Your task to perform on an android device: Clear the cart on amazon.com. Search for lg ultragear on amazon.com, select the first entry, and add it to the cart. Image 0: 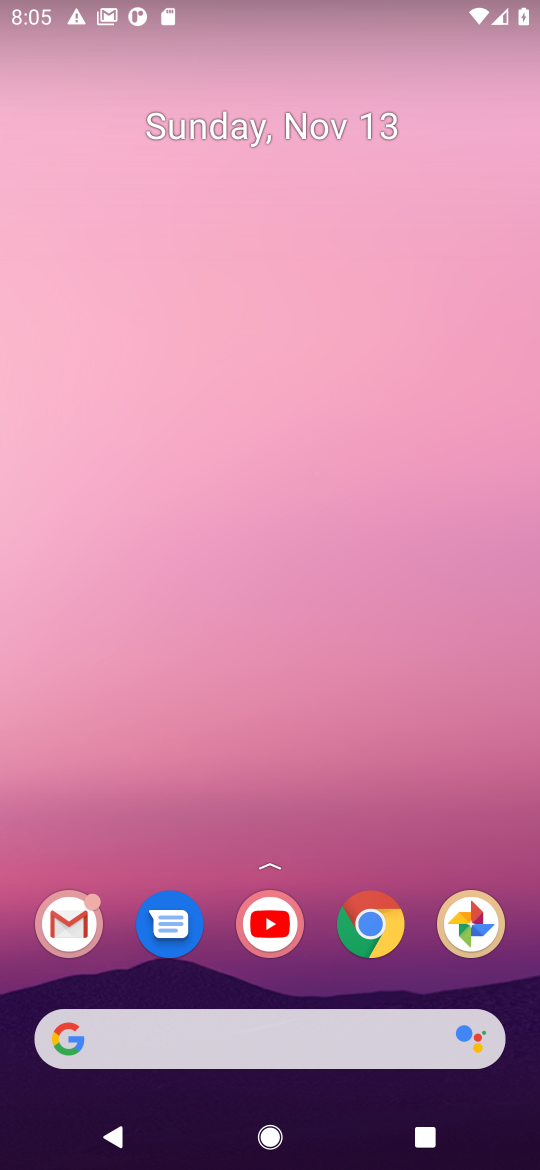
Step 0: click (370, 924)
Your task to perform on an android device: Clear the cart on amazon.com. Search for lg ultragear on amazon.com, select the first entry, and add it to the cart. Image 1: 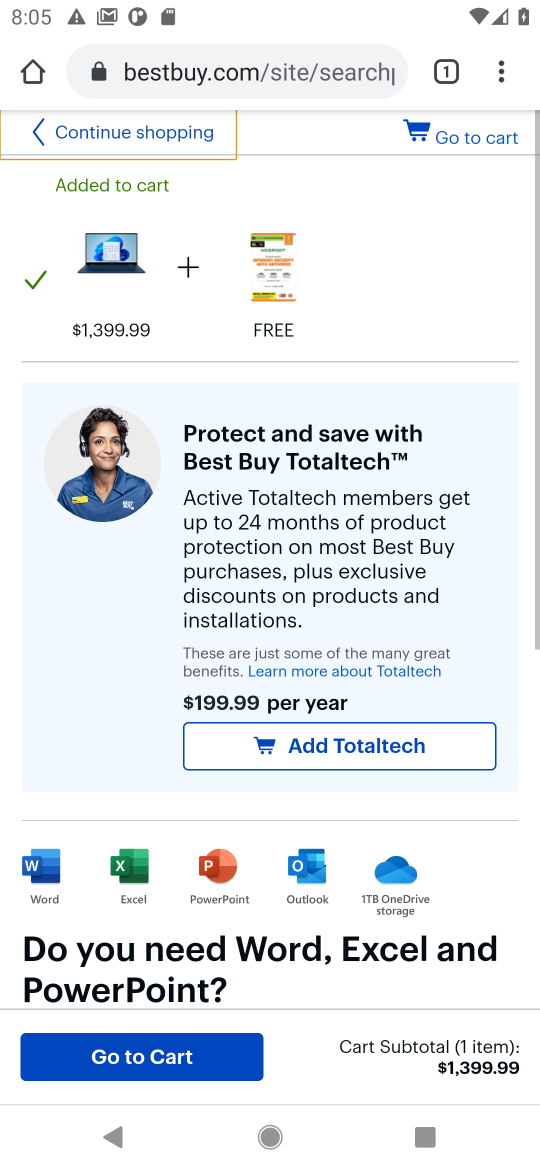
Step 1: click (192, 73)
Your task to perform on an android device: Clear the cart on amazon.com. Search for lg ultragear on amazon.com, select the first entry, and add it to the cart. Image 2: 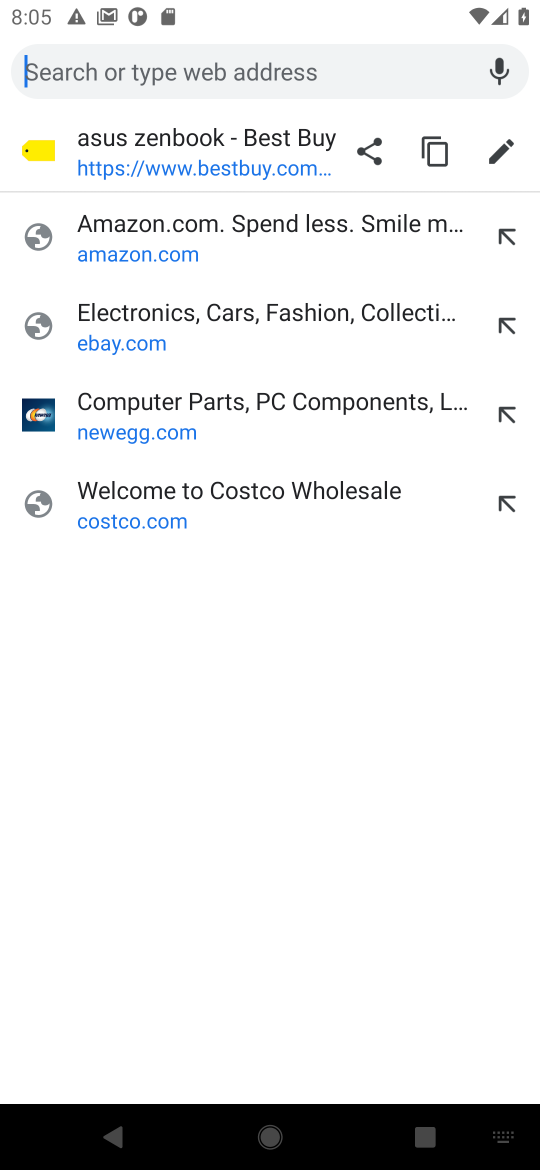
Step 2: click (122, 259)
Your task to perform on an android device: Clear the cart on amazon.com. Search for lg ultragear on amazon.com, select the first entry, and add it to the cart. Image 3: 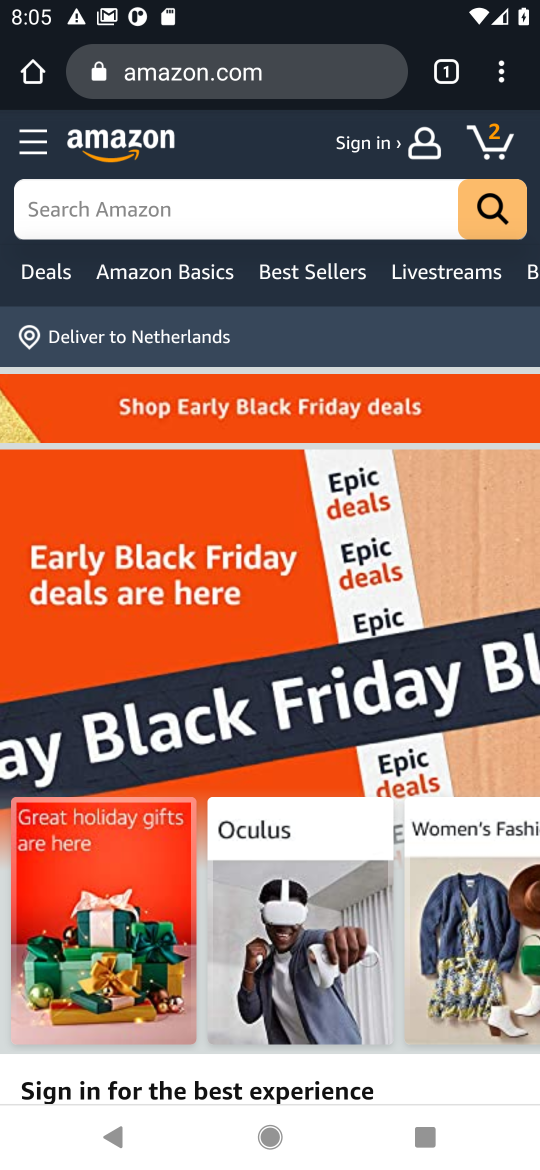
Step 3: click (502, 139)
Your task to perform on an android device: Clear the cart on amazon.com. Search for lg ultragear on amazon.com, select the first entry, and add it to the cart. Image 4: 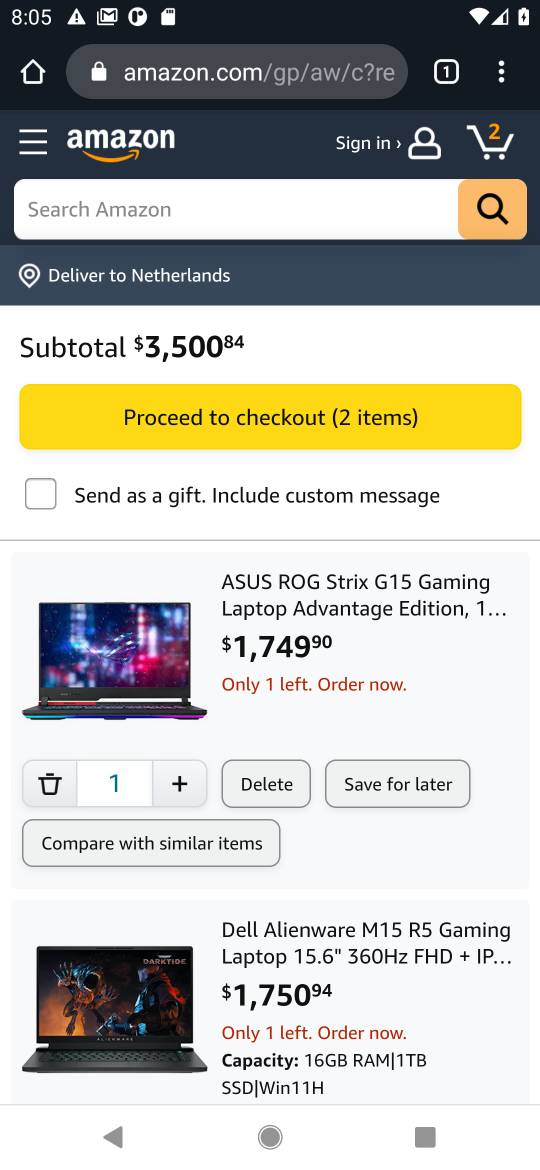
Step 4: click (251, 783)
Your task to perform on an android device: Clear the cart on amazon.com. Search for lg ultragear on amazon.com, select the first entry, and add it to the cart. Image 5: 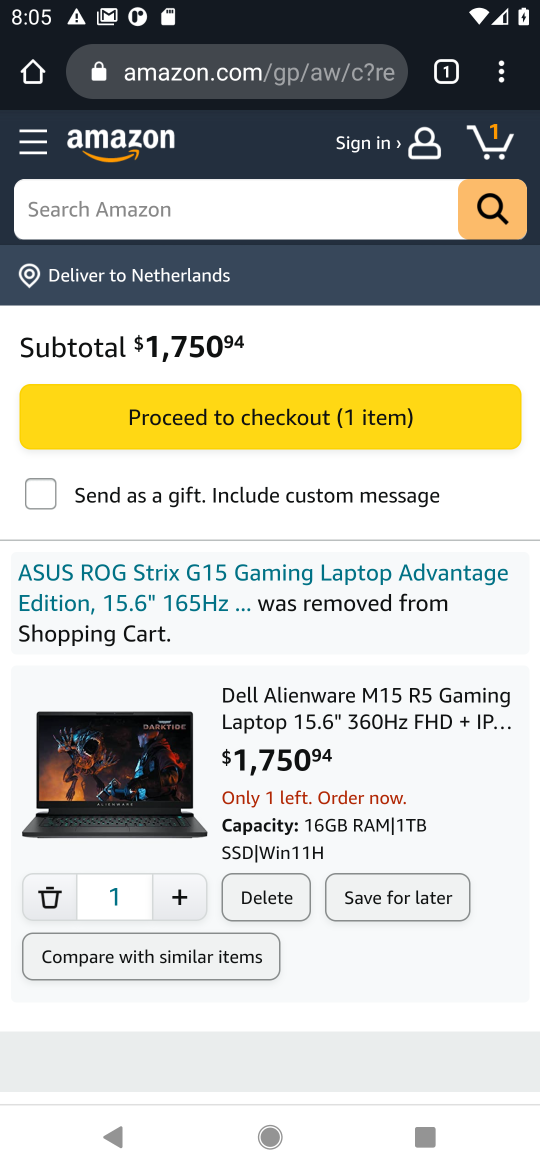
Step 5: click (265, 908)
Your task to perform on an android device: Clear the cart on amazon.com. Search for lg ultragear on amazon.com, select the first entry, and add it to the cart. Image 6: 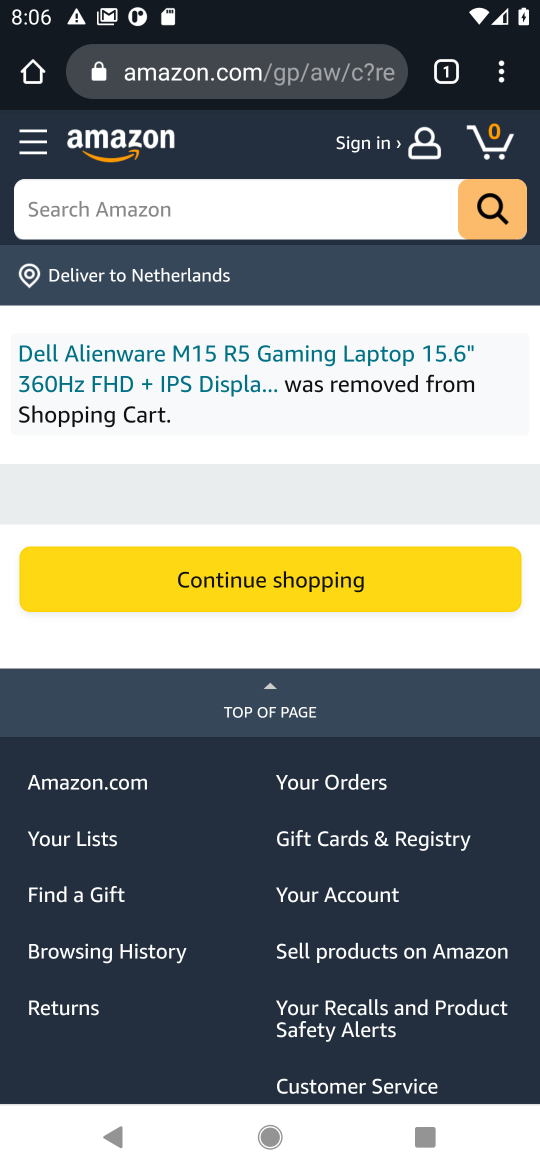
Step 6: click (252, 576)
Your task to perform on an android device: Clear the cart on amazon.com. Search for lg ultragear on amazon.com, select the first entry, and add it to the cart. Image 7: 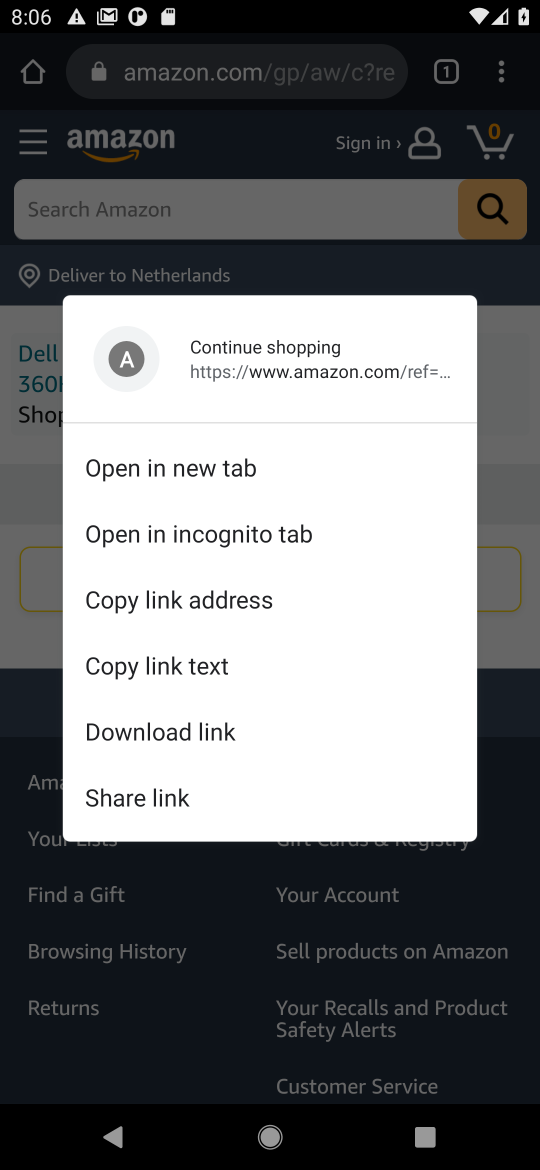
Step 7: click (149, 213)
Your task to perform on an android device: Clear the cart on amazon.com. Search for lg ultragear on amazon.com, select the first entry, and add it to the cart. Image 8: 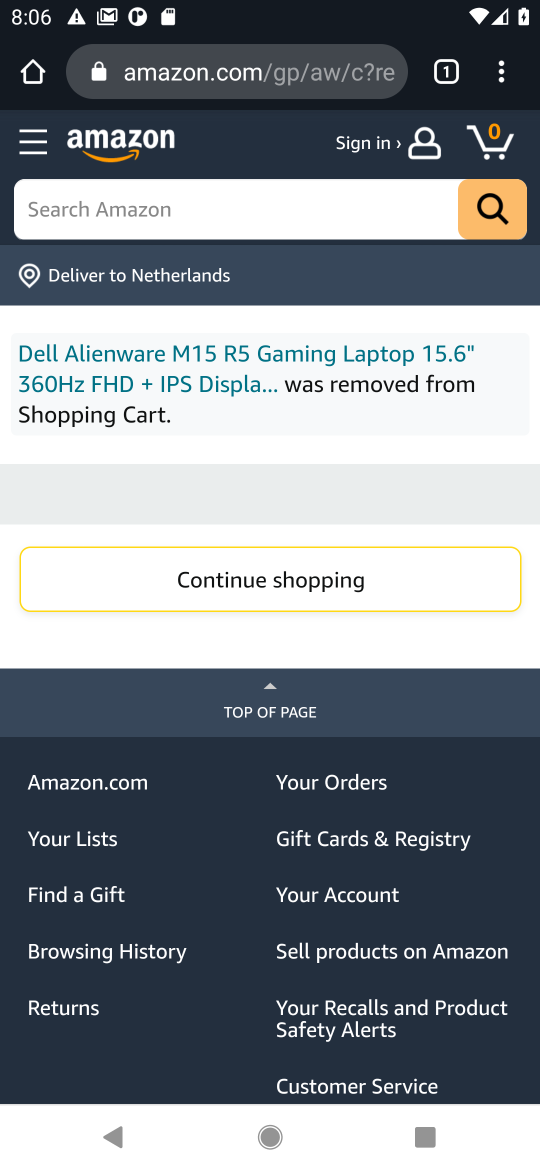
Step 8: click (137, 215)
Your task to perform on an android device: Clear the cart on amazon.com. Search for lg ultragear on amazon.com, select the first entry, and add it to the cart. Image 9: 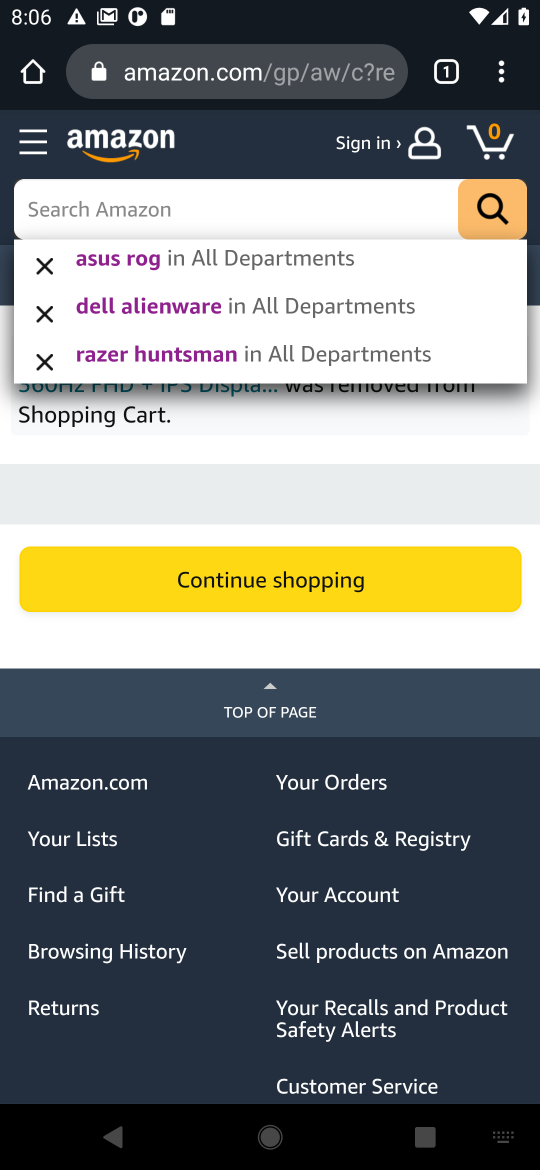
Step 9: type "lg ultragear"
Your task to perform on an android device: Clear the cart on amazon.com. Search for lg ultragear on amazon.com, select the first entry, and add it to the cart. Image 10: 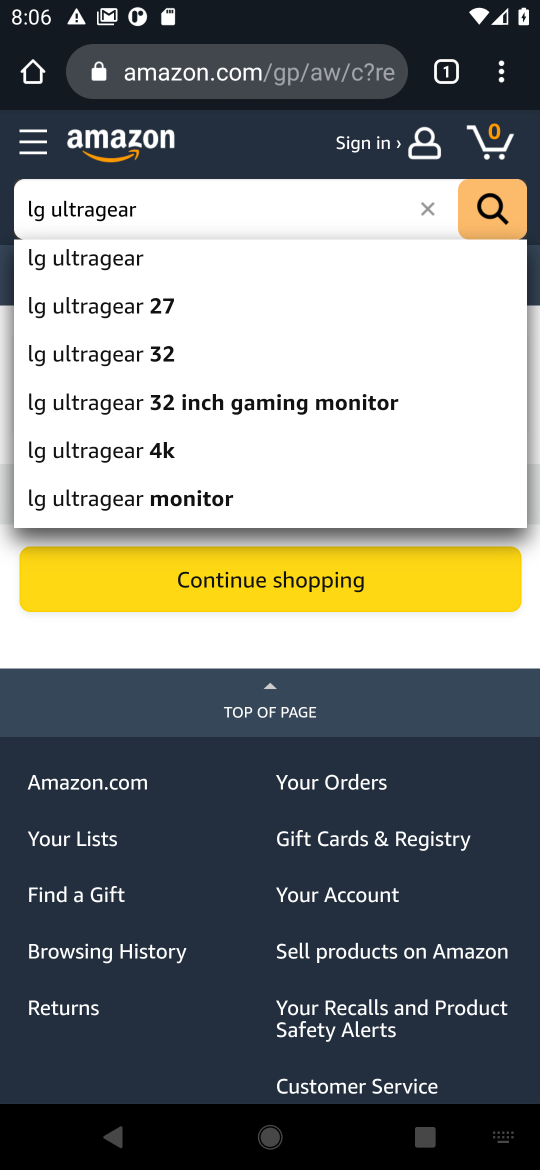
Step 10: click (88, 265)
Your task to perform on an android device: Clear the cart on amazon.com. Search for lg ultragear on amazon.com, select the first entry, and add it to the cart. Image 11: 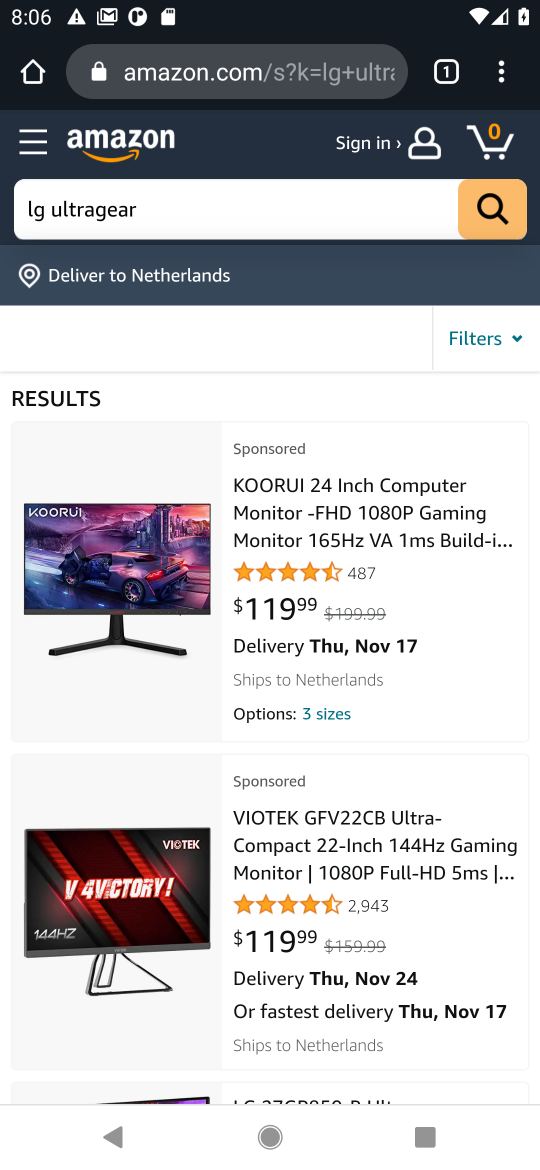
Step 11: task complete